Your task to perform on an android device: Go to wifi settings Image 0: 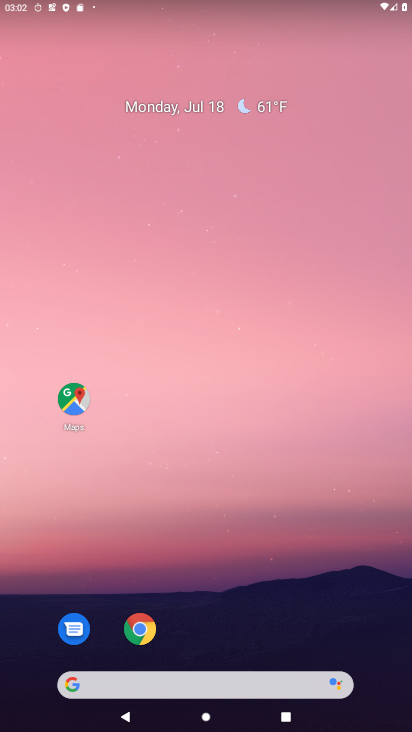
Step 0: drag from (206, 684) to (207, 268)
Your task to perform on an android device: Go to wifi settings Image 1: 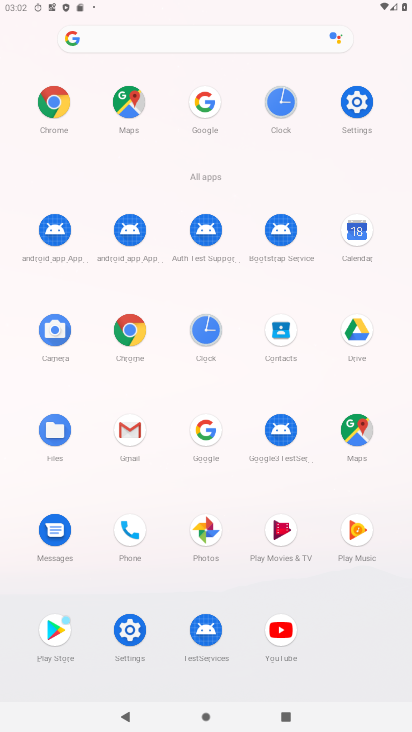
Step 1: click (356, 101)
Your task to perform on an android device: Go to wifi settings Image 2: 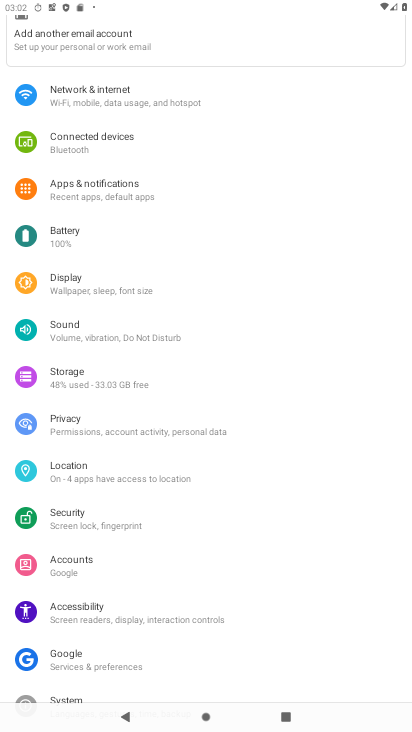
Step 2: click (139, 102)
Your task to perform on an android device: Go to wifi settings Image 3: 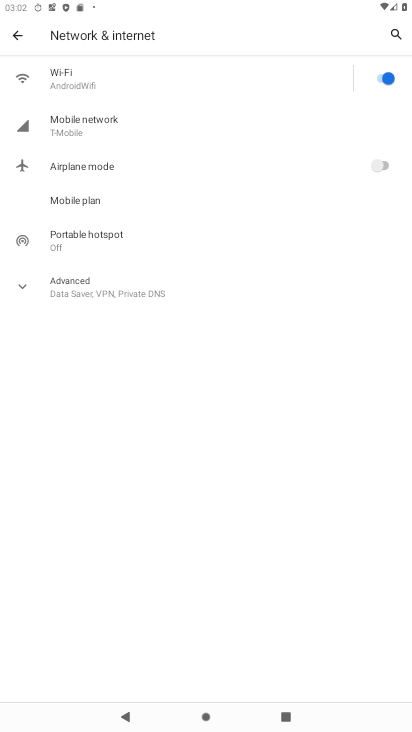
Step 3: click (85, 81)
Your task to perform on an android device: Go to wifi settings Image 4: 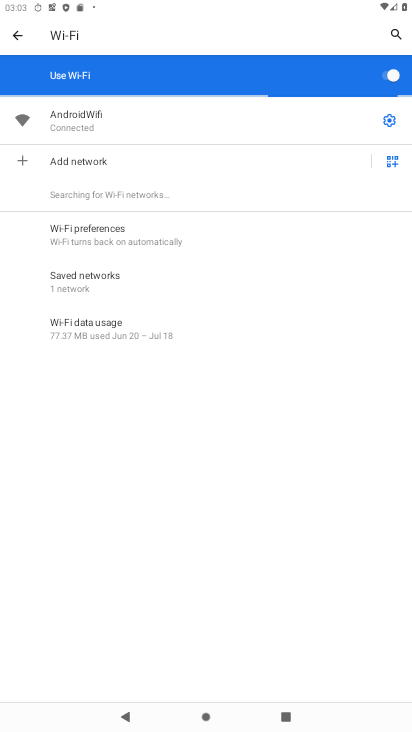
Step 4: click (393, 119)
Your task to perform on an android device: Go to wifi settings Image 5: 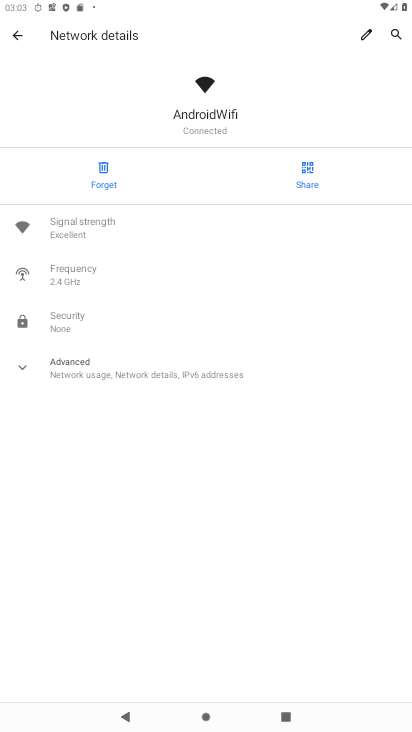
Step 5: task complete